Your task to perform on an android device: change timer sound Image 0: 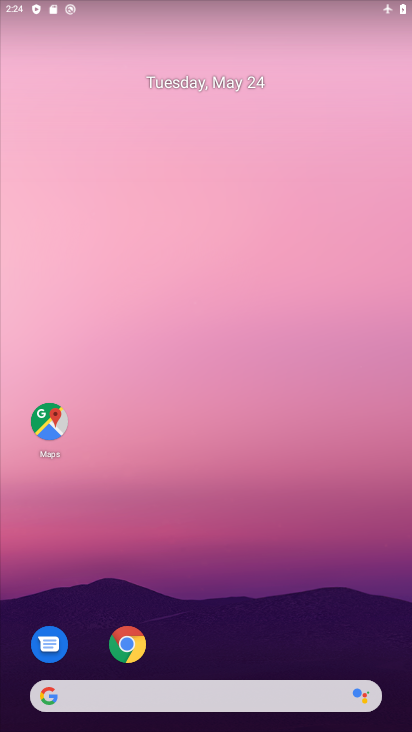
Step 0: drag from (253, 626) to (246, 16)
Your task to perform on an android device: change timer sound Image 1: 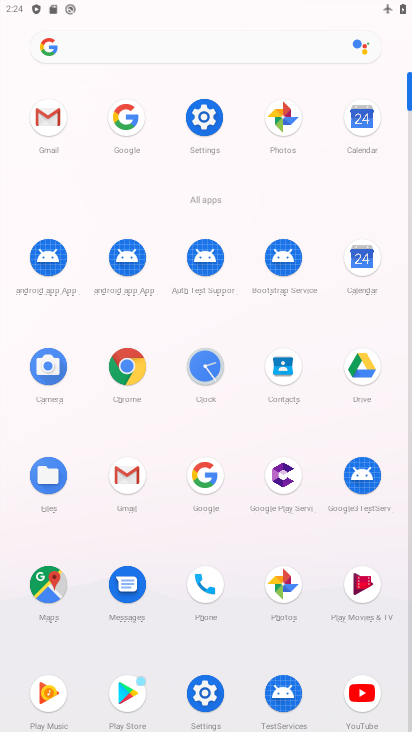
Step 1: click (204, 369)
Your task to perform on an android device: change timer sound Image 2: 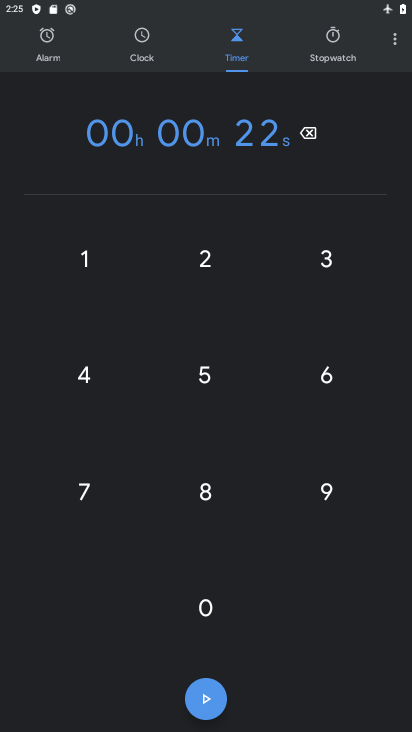
Step 2: click (393, 33)
Your task to perform on an android device: change timer sound Image 3: 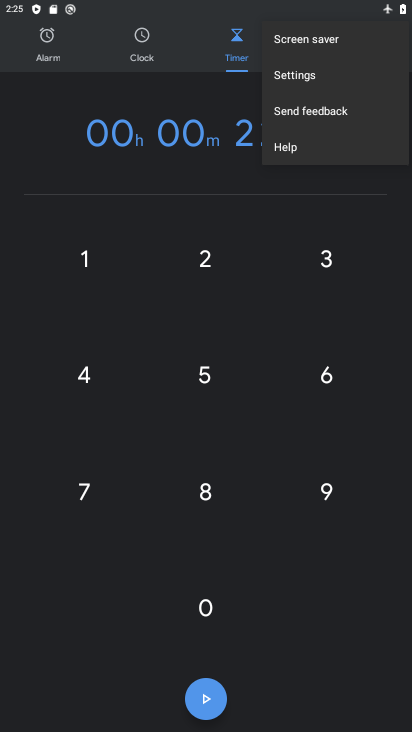
Step 3: click (295, 73)
Your task to perform on an android device: change timer sound Image 4: 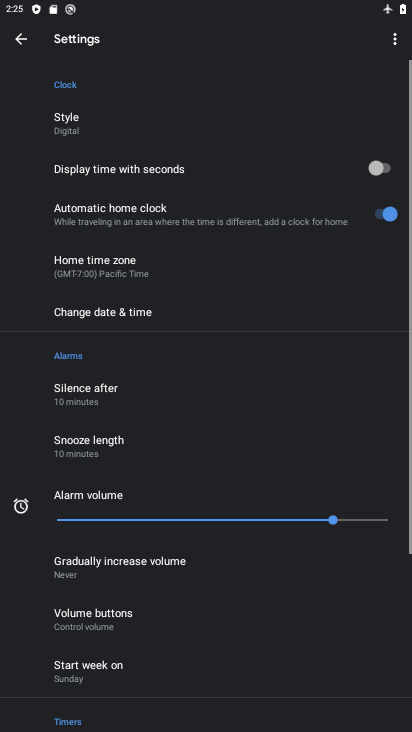
Step 4: drag from (244, 602) to (229, 249)
Your task to perform on an android device: change timer sound Image 5: 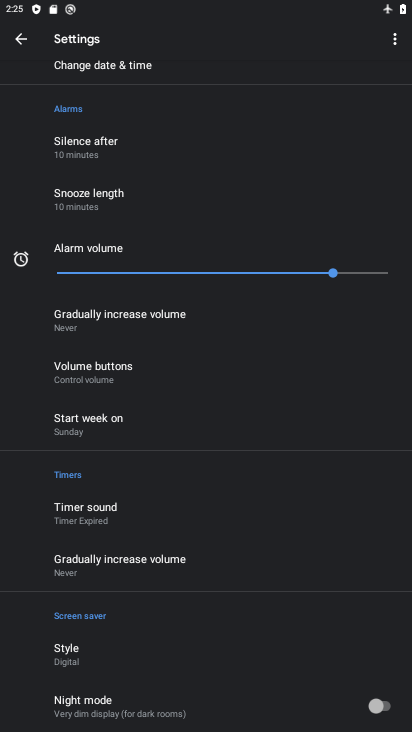
Step 5: click (85, 523)
Your task to perform on an android device: change timer sound Image 6: 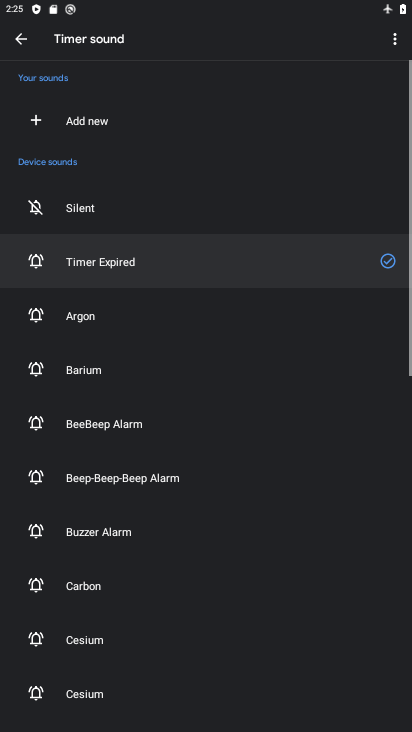
Step 6: click (79, 364)
Your task to perform on an android device: change timer sound Image 7: 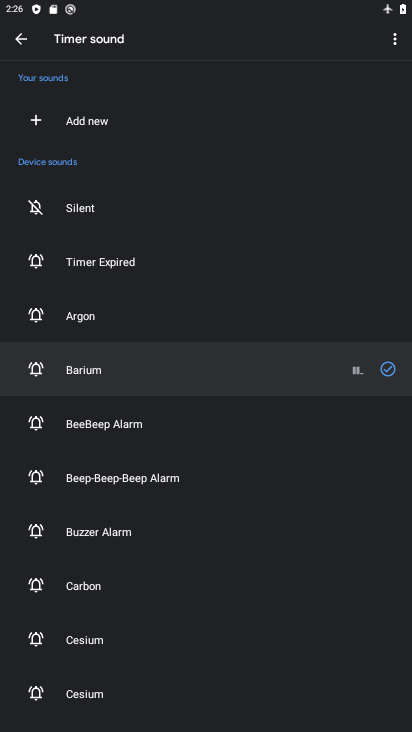
Step 7: task complete